Your task to perform on an android device: turn off location Image 0: 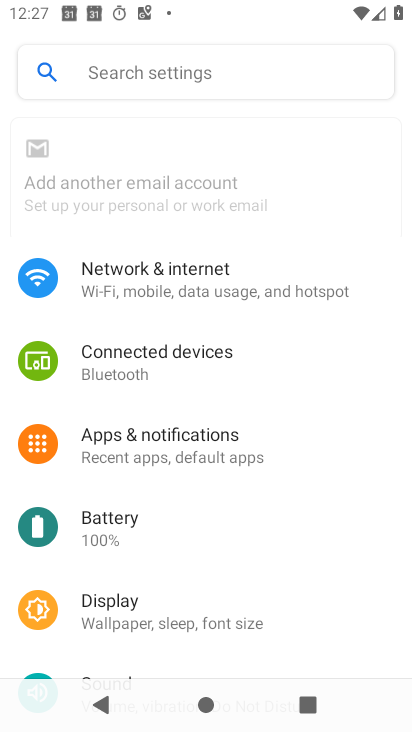
Step 0: drag from (287, 581) to (288, 239)
Your task to perform on an android device: turn off location Image 1: 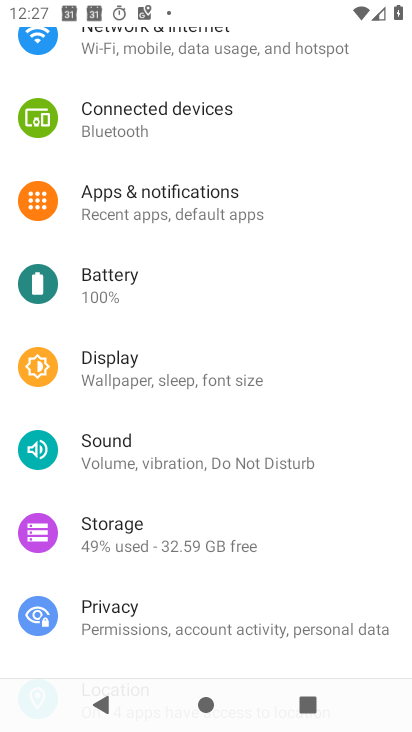
Step 1: drag from (241, 531) to (261, 381)
Your task to perform on an android device: turn off location Image 2: 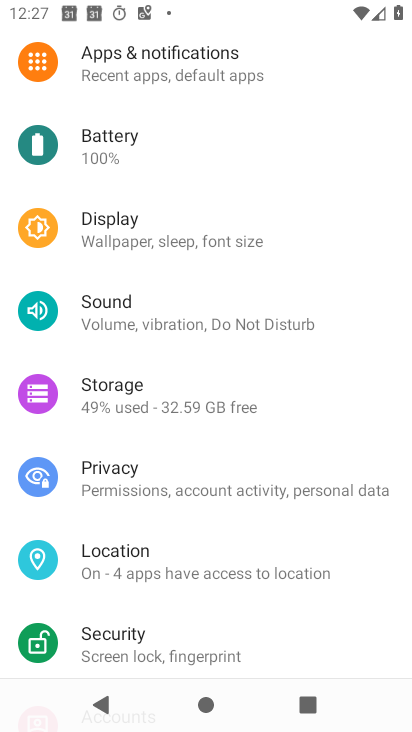
Step 2: click (135, 569)
Your task to perform on an android device: turn off location Image 3: 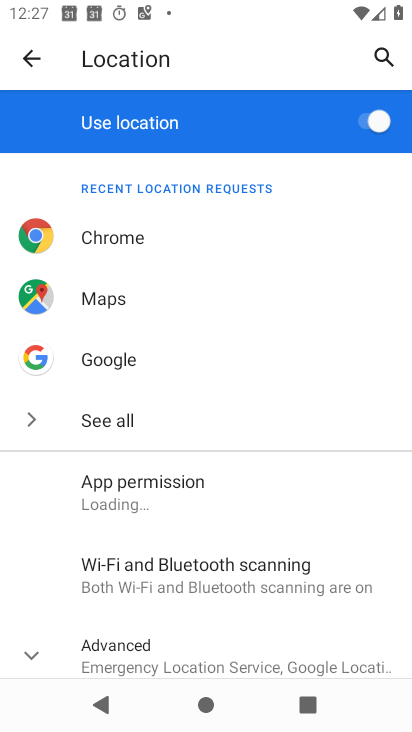
Step 3: task complete